Your task to perform on an android device: Open Google Chrome and open the bookmarks view Image 0: 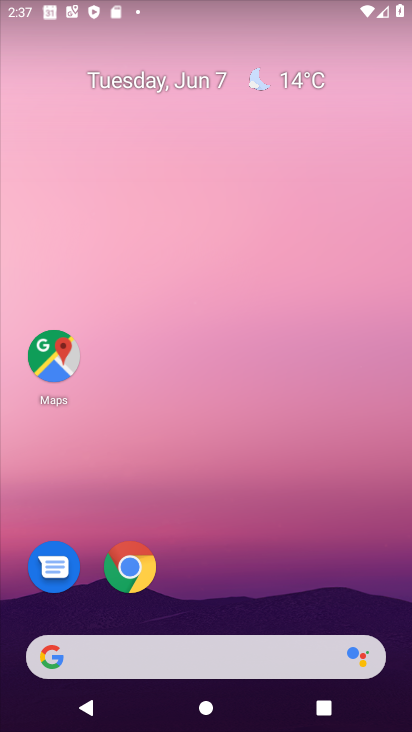
Step 0: click (135, 561)
Your task to perform on an android device: Open Google Chrome and open the bookmarks view Image 1: 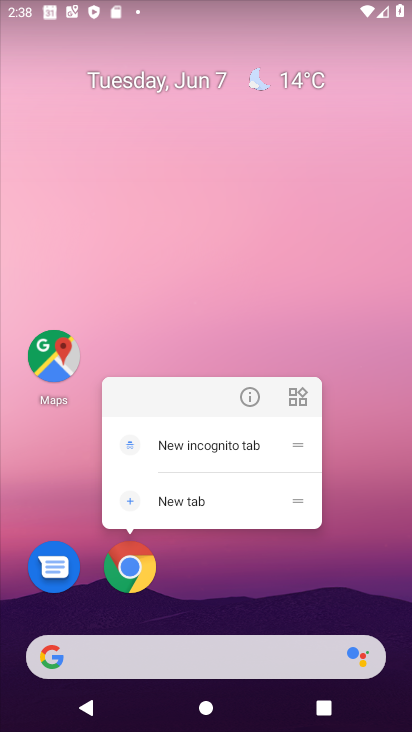
Step 1: click (142, 572)
Your task to perform on an android device: Open Google Chrome and open the bookmarks view Image 2: 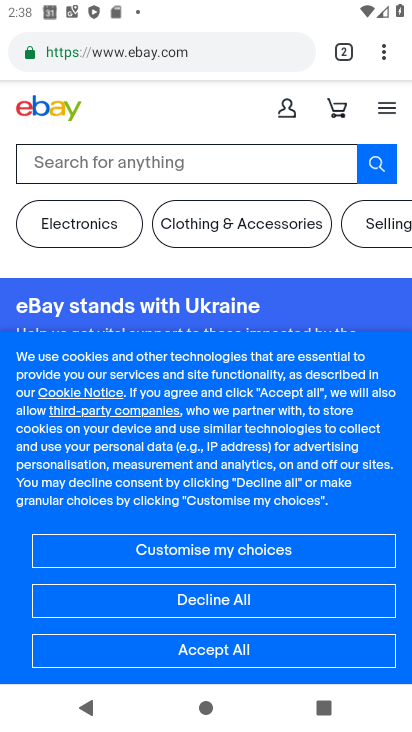
Step 2: task complete